Your task to perform on an android device: turn on showing notifications on the lock screen Image 0: 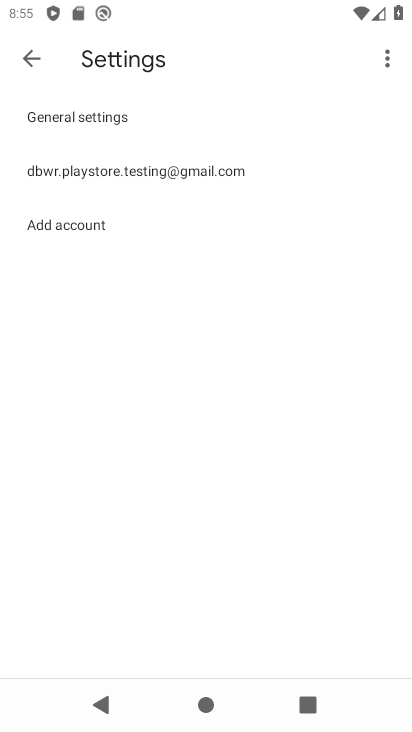
Step 0: press home button
Your task to perform on an android device: turn on showing notifications on the lock screen Image 1: 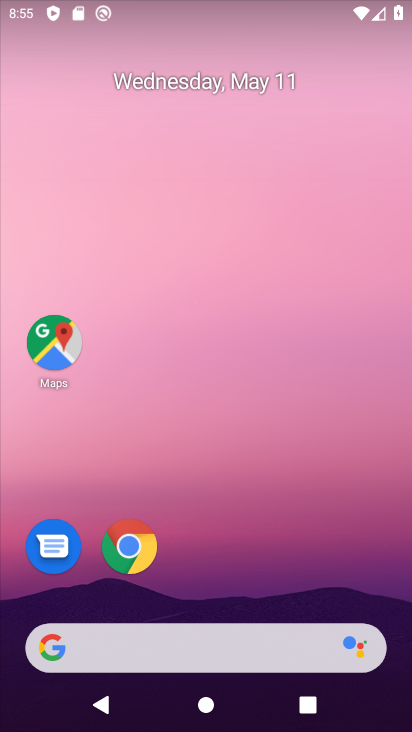
Step 1: drag from (372, 609) to (301, 234)
Your task to perform on an android device: turn on showing notifications on the lock screen Image 2: 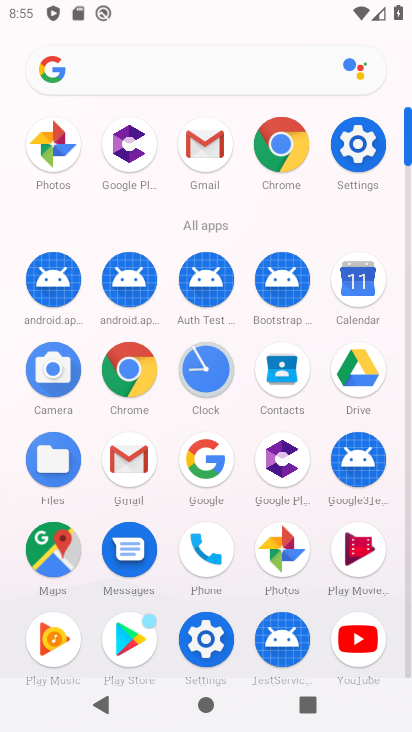
Step 2: click (368, 154)
Your task to perform on an android device: turn on showing notifications on the lock screen Image 3: 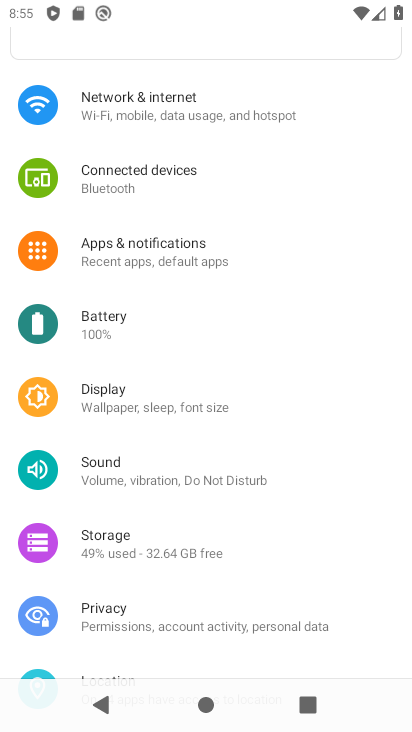
Step 3: click (180, 248)
Your task to perform on an android device: turn on showing notifications on the lock screen Image 4: 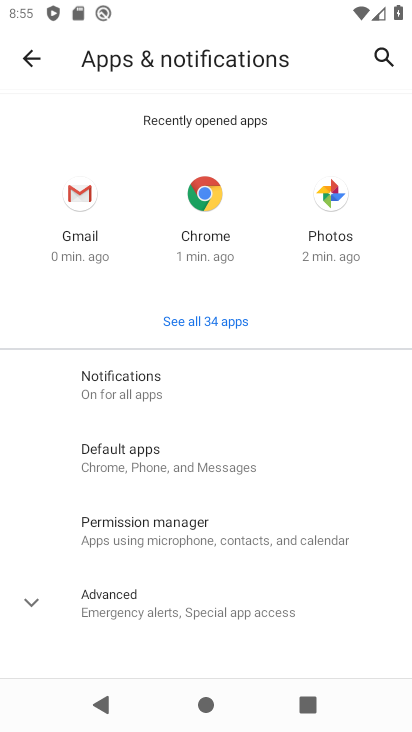
Step 4: click (182, 376)
Your task to perform on an android device: turn on showing notifications on the lock screen Image 5: 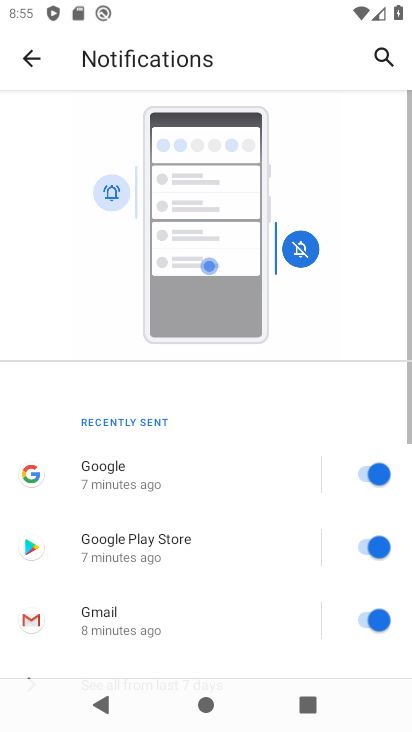
Step 5: drag from (261, 583) to (179, 245)
Your task to perform on an android device: turn on showing notifications on the lock screen Image 6: 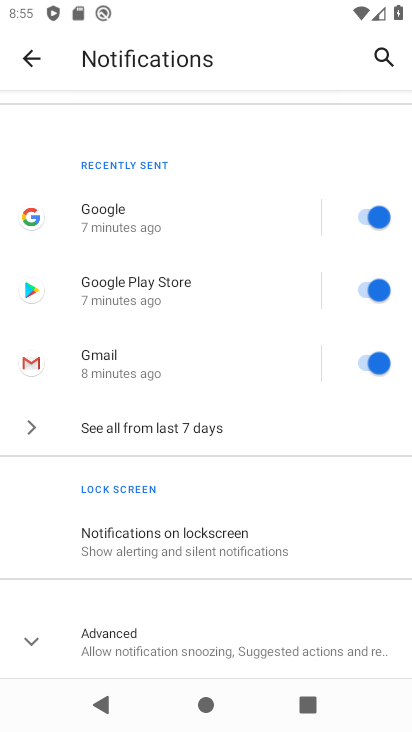
Step 6: click (247, 527)
Your task to perform on an android device: turn on showing notifications on the lock screen Image 7: 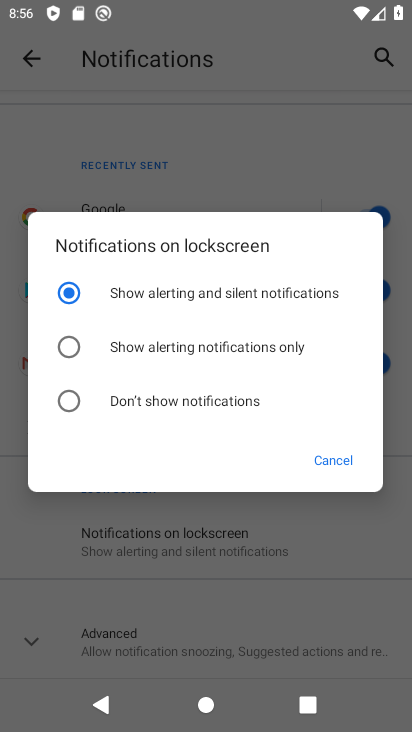
Step 7: task complete